Your task to perform on an android device: change your default location settings in chrome Image 0: 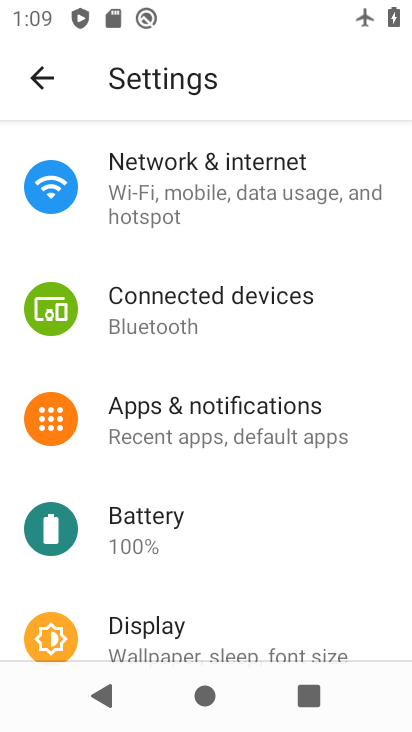
Step 0: press home button
Your task to perform on an android device: change your default location settings in chrome Image 1: 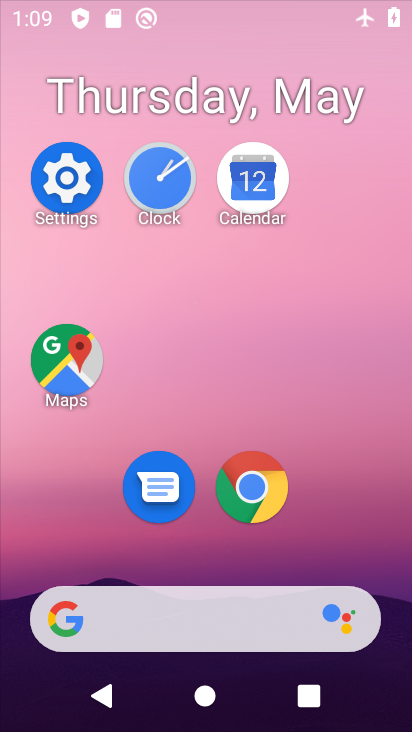
Step 1: click (265, 474)
Your task to perform on an android device: change your default location settings in chrome Image 2: 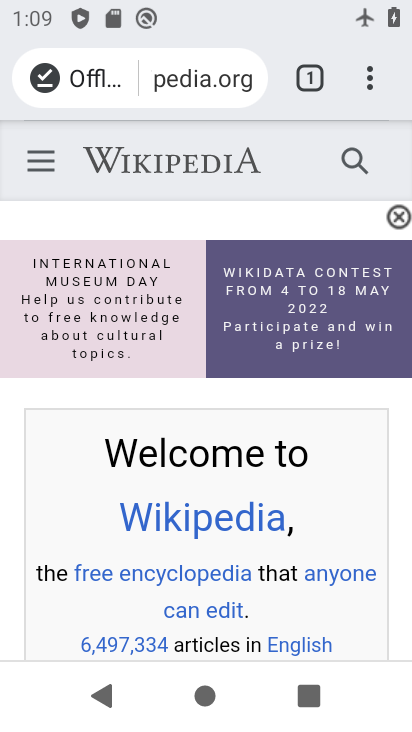
Step 2: click (375, 82)
Your task to perform on an android device: change your default location settings in chrome Image 3: 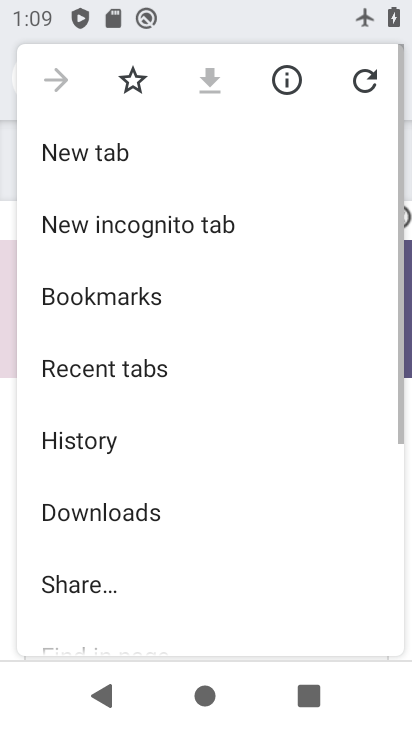
Step 3: drag from (192, 569) to (264, 119)
Your task to perform on an android device: change your default location settings in chrome Image 4: 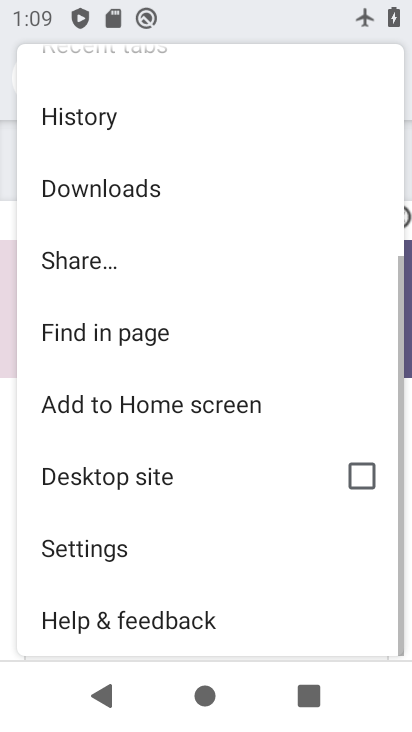
Step 4: click (170, 526)
Your task to perform on an android device: change your default location settings in chrome Image 5: 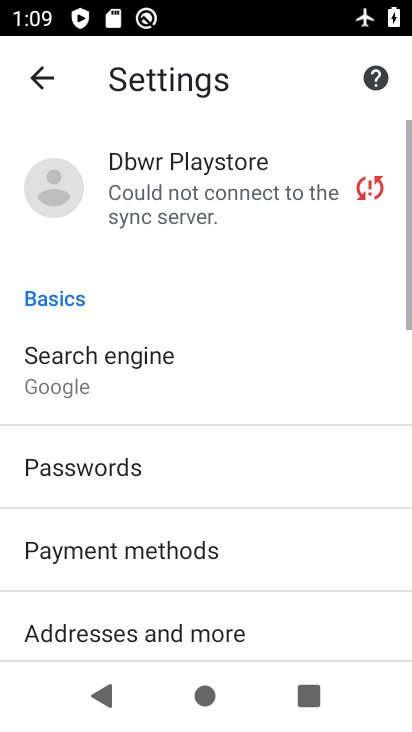
Step 5: drag from (170, 526) to (246, 103)
Your task to perform on an android device: change your default location settings in chrome Image 6: 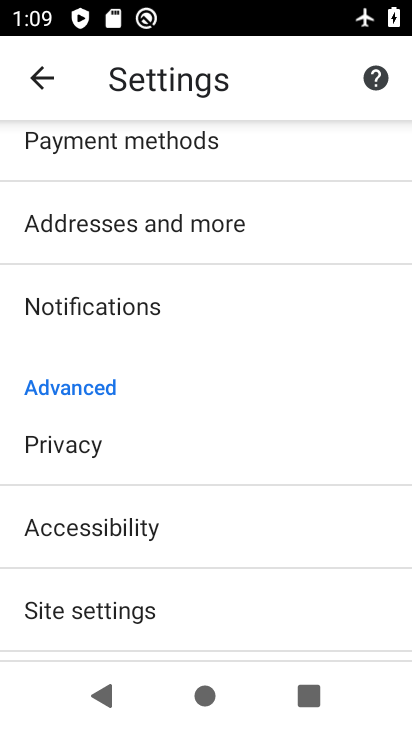
Step 6: drag from (168, 530) to (201, 295)
Your task to perform on an android device: change your default location settings in chrome Image 7: 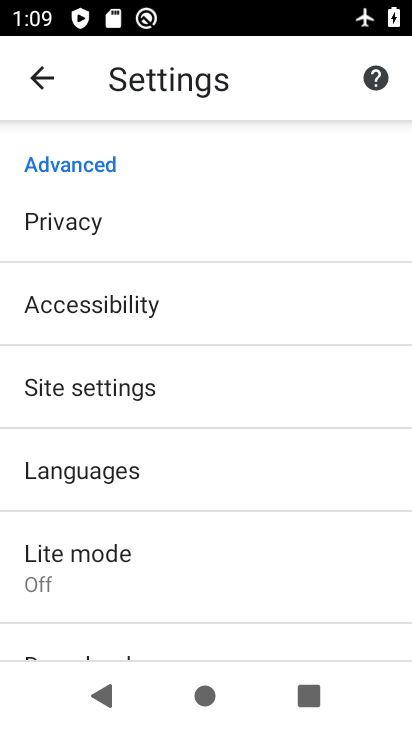
Step 7: click (169, 378)
Your task to perform on an android device: change your default location settings in chrome Image 8: 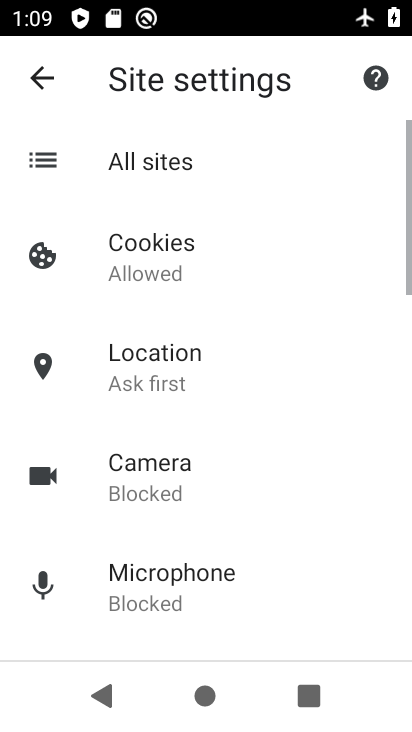
Step 8: click (169, 378)
Your task to perform on an android device: change your default location settings in chrome Image 9: 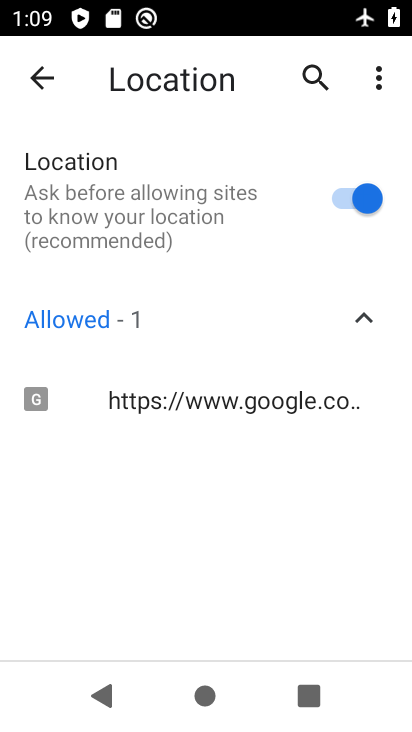
Step 9: click (347, 196)
Your task to perform on an android device: change your default location settings in chrome Image 10: 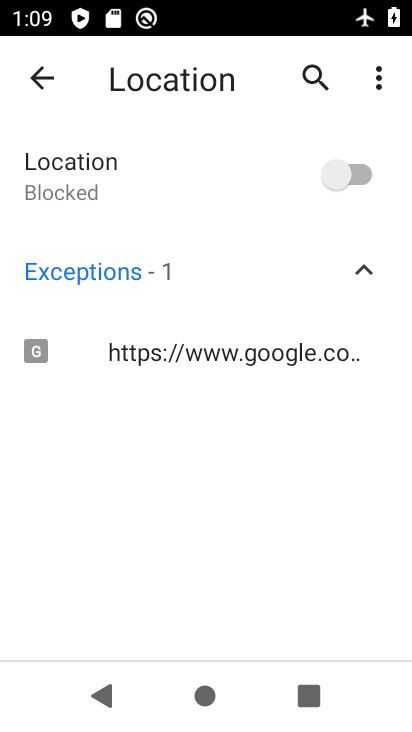
Step 10: task complete